Your task to perform on an android device: Open notification settings Image 0: 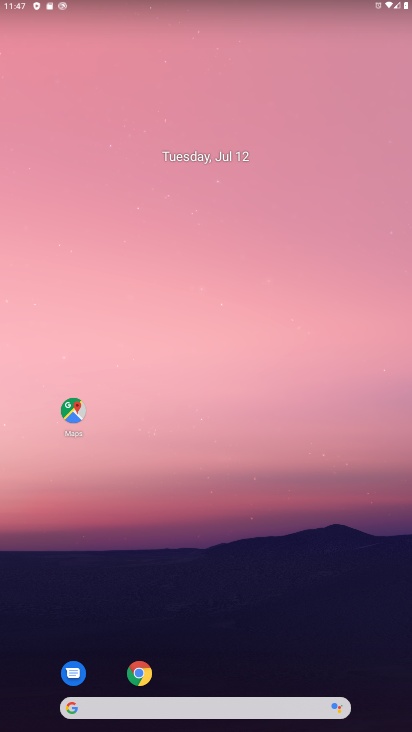
Step 0: drag from (251, 562) to (251, 218)
Your task to perform on an android device: Open notification settings Image 1: 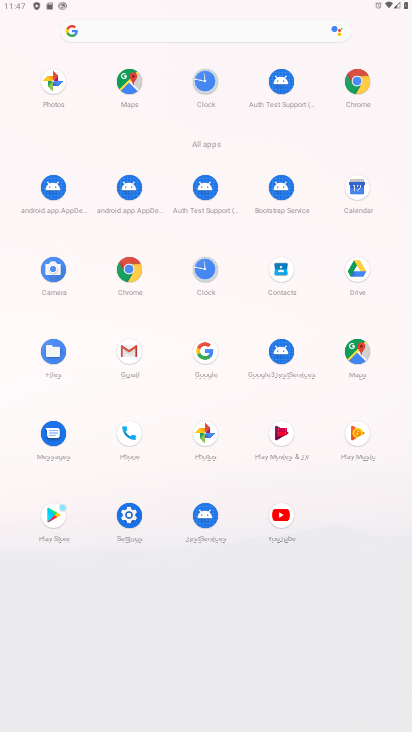
Step 1: click (125, 512)
Your task to perform on an android device: Open notification settings Image 2: 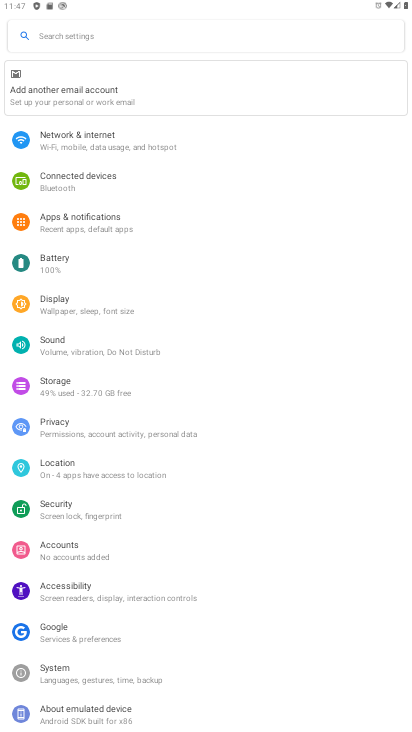
Step 2: click (112, 227)
Your task to perform on an android device: Open notification settings Image 3: 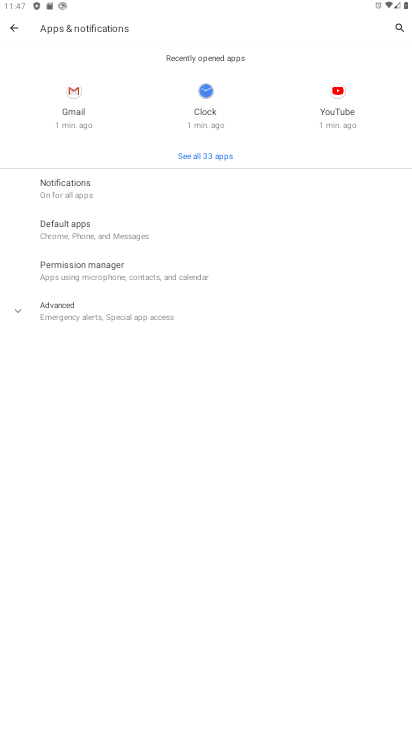
Step 3: click (81, 191)
Your task to perform on an android device: Open notification settings Image 4: 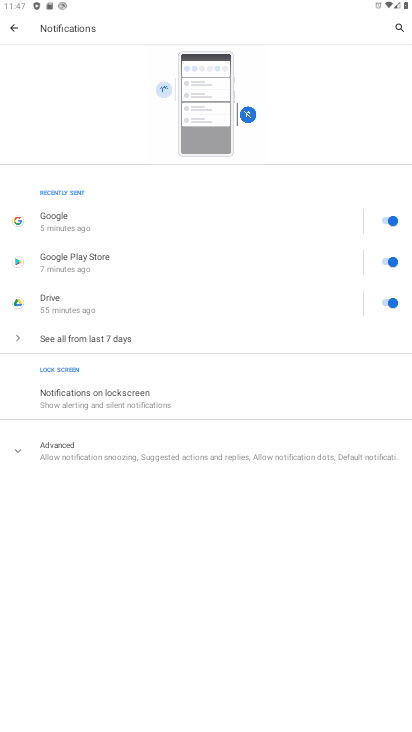
Step 4: click (70, 443)
Your task to perform on an android device: Open notification settings Image 5: 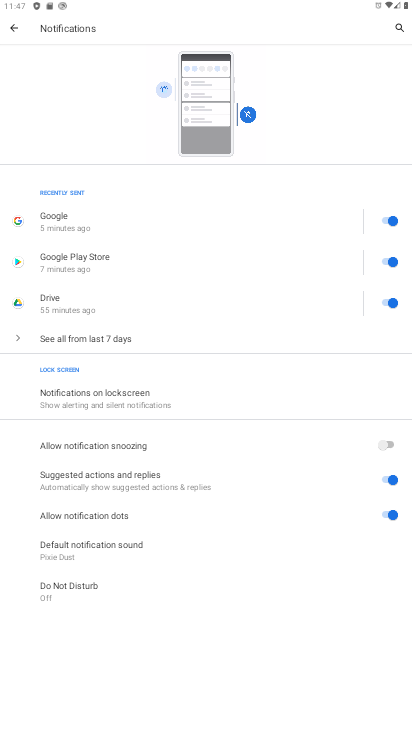
Step 5: task complete